Your task to perform on an android device: What's the weather today? Image 0: 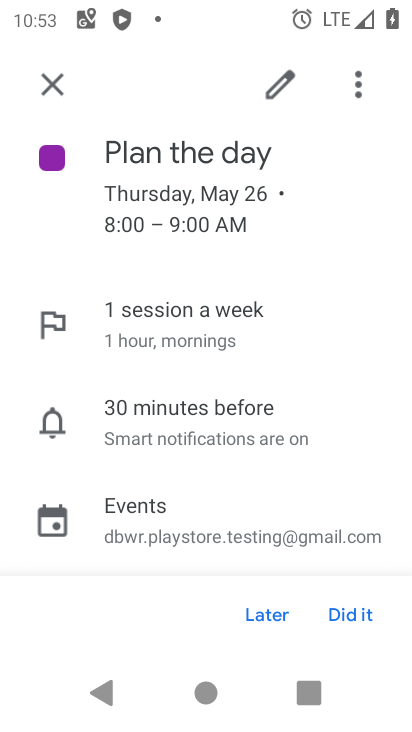
Step 0: press home button
Your task to perform on an android device: What's the weather today? Image 1: 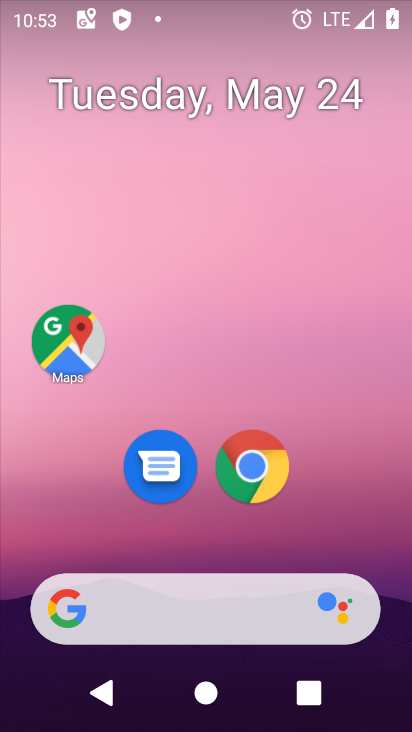
Step 1: click (218, 622)
Your task to perform on an android device: What's the weather today? Image 2: 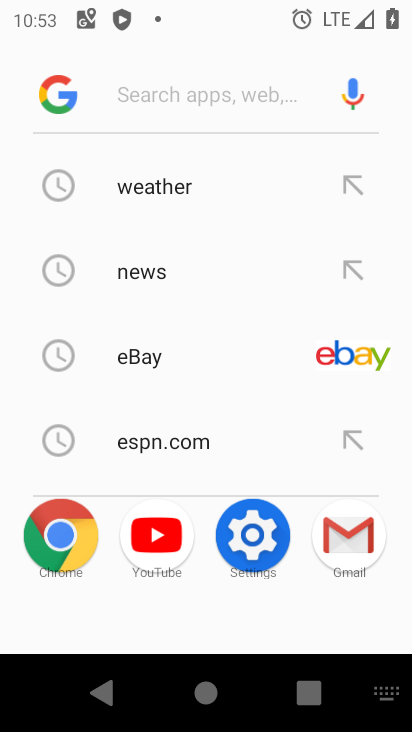
Step 2: click (177, 196)
Your task to perform on an android device: What's the weather today? Image 3: 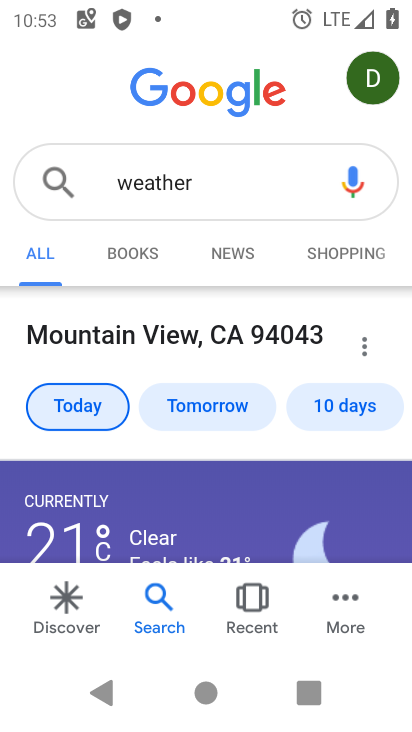
Step 3: task complete